Your task to perform on an android device: Check the news Image 0: 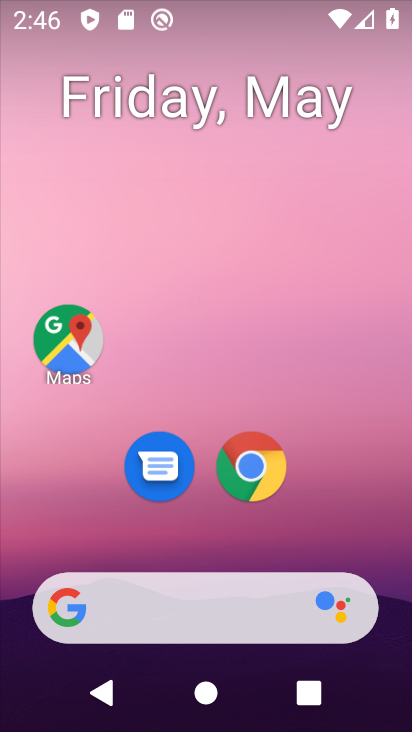
Step 0: drag from (219, 551) to (243, 60)
Your task to perform on an android device: Check the news Image 1: 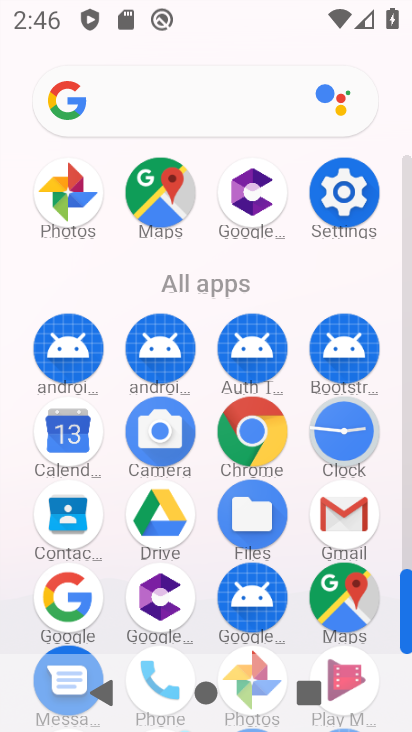
Step 1: task complete